Your task to perform on an android device: Open battery settings Image 0: 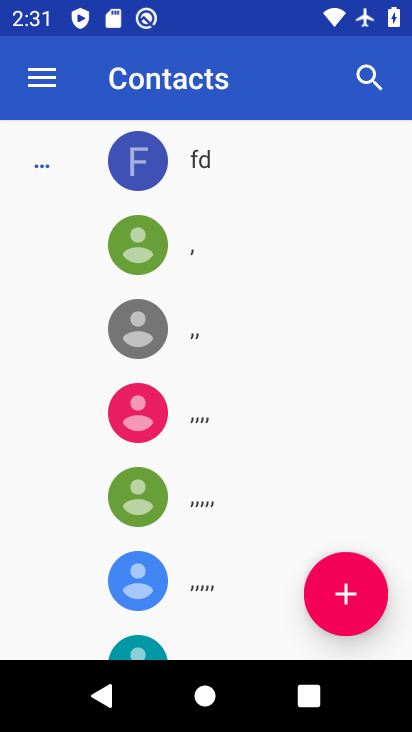
Step 0: press home button
Your task to perform on an android device: Open battery settings Image 1: 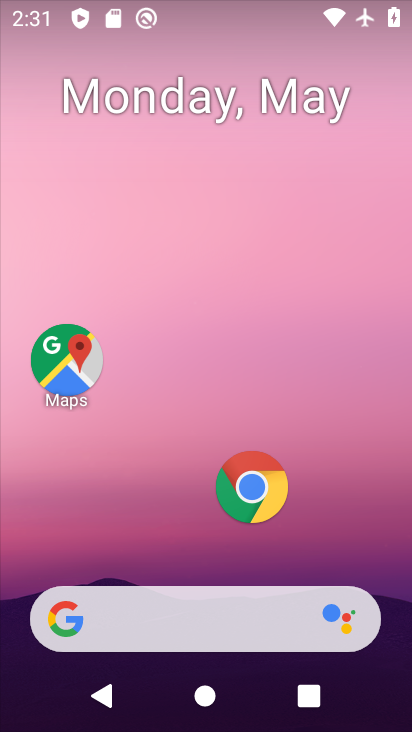
Step 1: drag from (180, 525) to (187, 45)
Your task to perform on an android device: Open battery settings Image 2: 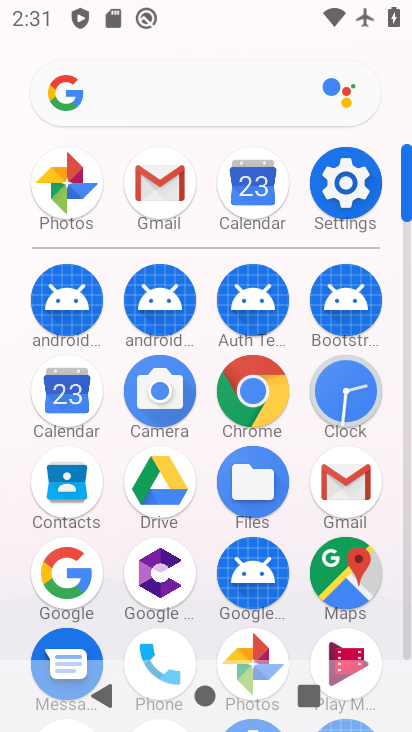
Step 2: click (339, 165)
Your task to perform on an android device: Open battery settings Image 3: 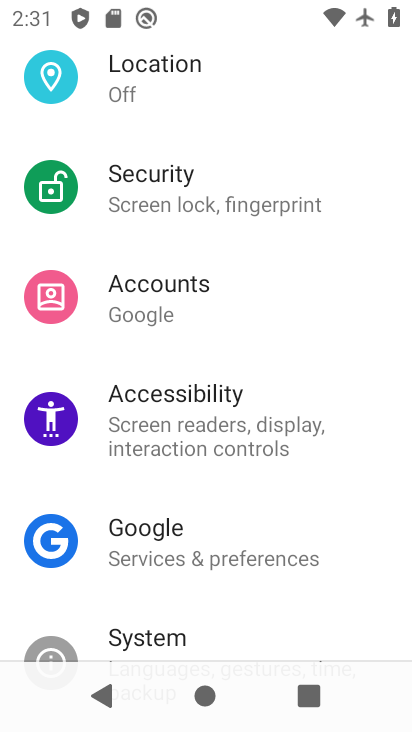
Step 3: drag from (259, 227) to (260, 434)
Your task to perform on an android device: Open battery settings Image 4: 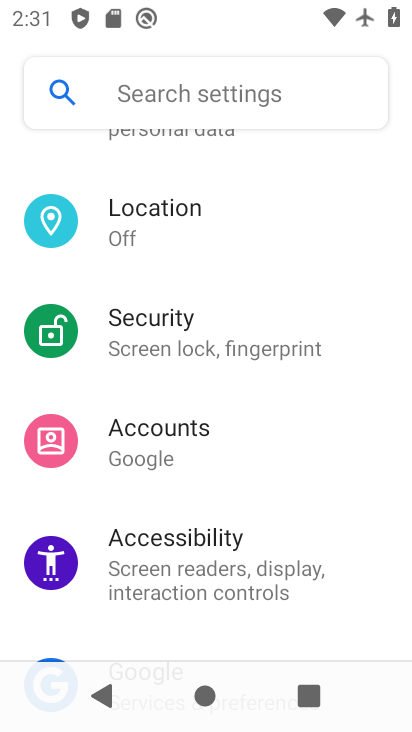
Step 4: drag from (257, 345) to (270, 540)
Your task to perform on an android device: Open battery settings Image 5: 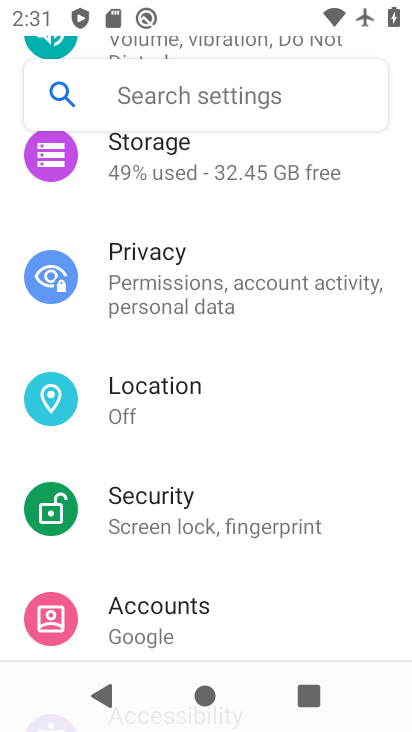
Step 5: drag from (232, 226) to (174, 547)
Your task to perform on an android device: Open battery settings Image 6: 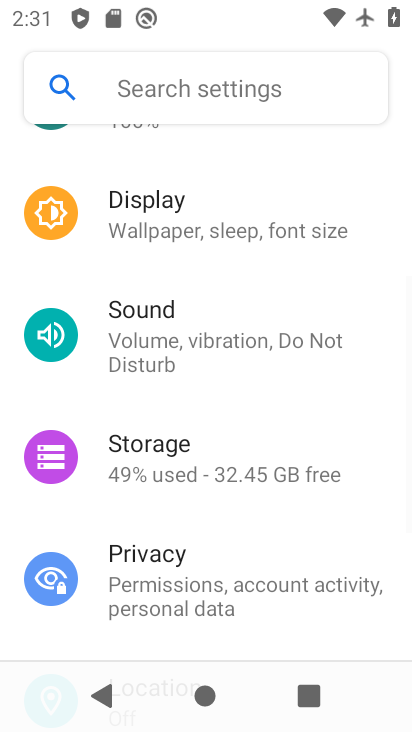
Step 6: drag from (232, 201) to (203, 497)
Your task to perform on an android device: Open battery settings Image 7: 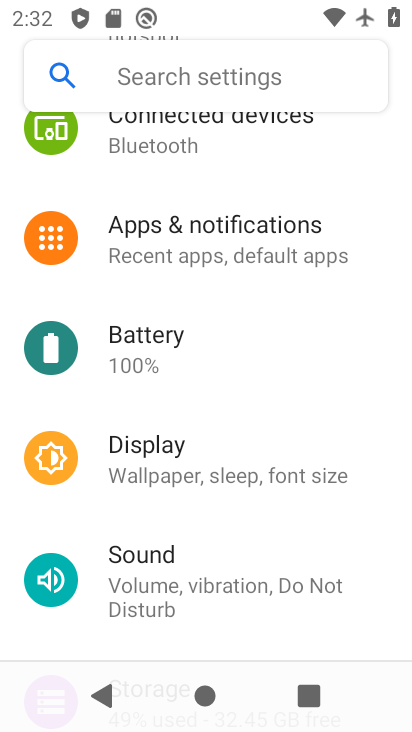
Step 7: click (168, 358)
Your task to perform on an android device: Open battery settings Image 8: 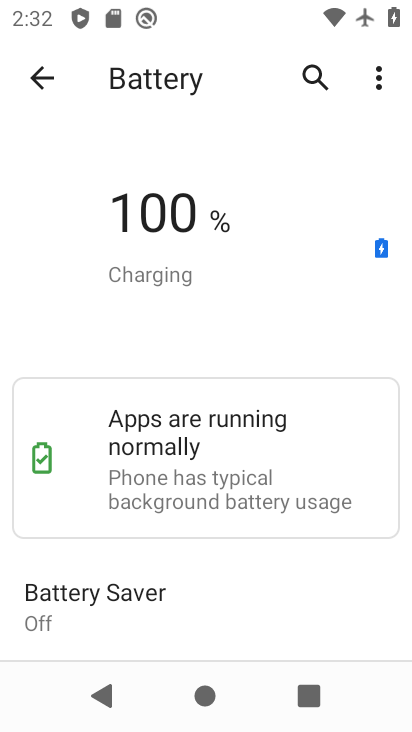
Step 8: task complete